Your task to perform on an android device: change alarm snooze length Image 0: 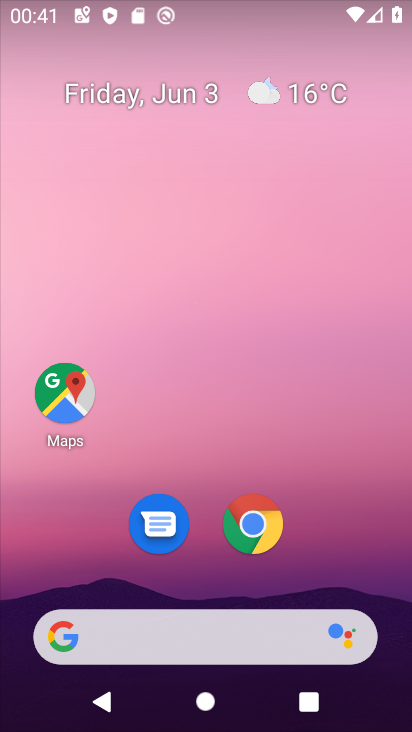
Step 0: drag from (202, 478) to (216, 0)
Your task to perform on an android device: change alarm snooze length Image 1: 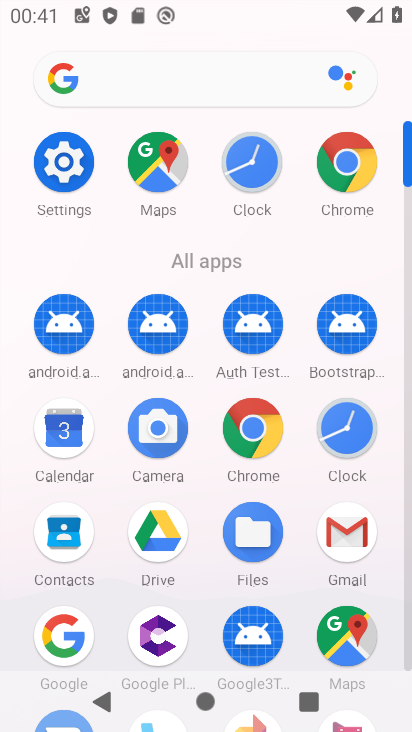
Step 1: click (264, 177)
Your task to perform on an android device: change alarm snooze length Image 2: 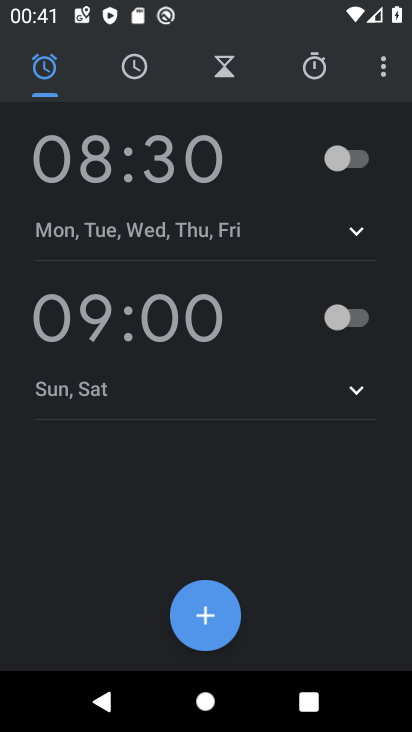
Step 2: click (382, 67)
Your task to perform on an android device: change alarm snooze length Image 3: 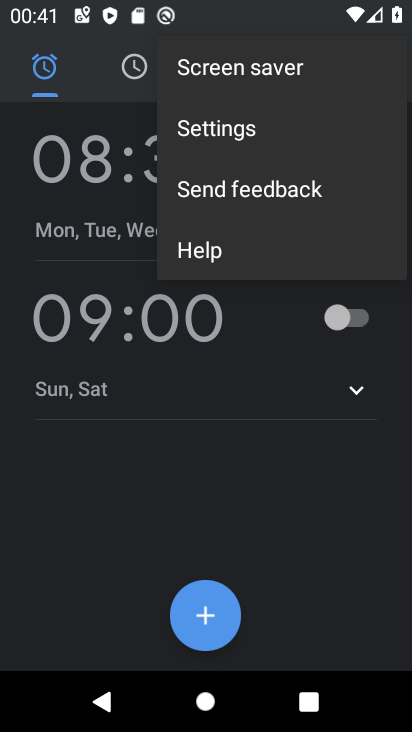
Step 3: click (311, 125)
Your task to perform on an android device: change alarm snooze length Image 4: 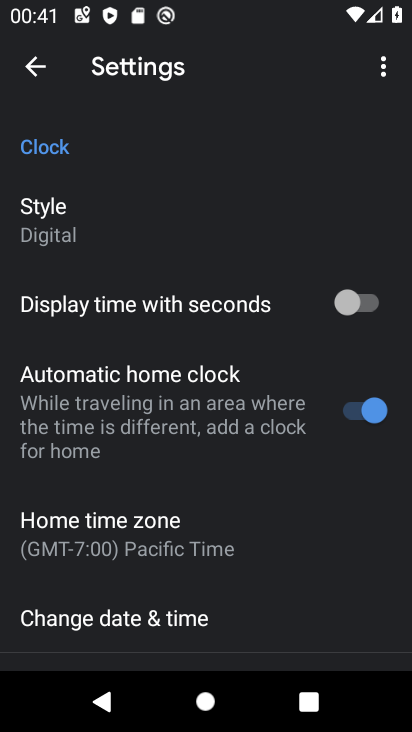
Step 4: drag from (220, 496) to (247, 40)
Your task to perform on an android device: change alarm snooze length Image 5: 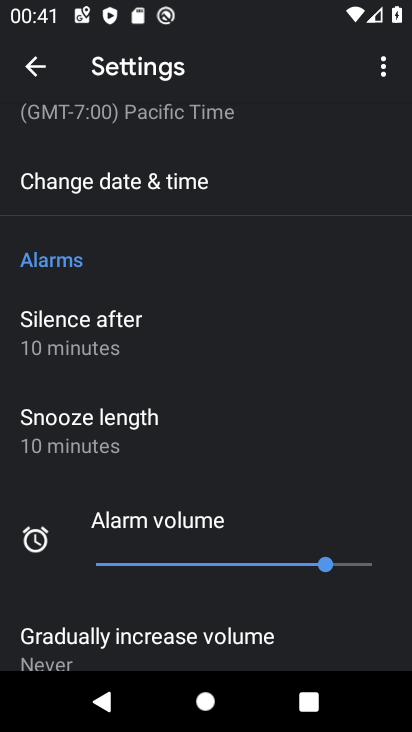
Step 5: click (137, 409)
Your task to perform on an android device: change alarm snooze length Image 6: 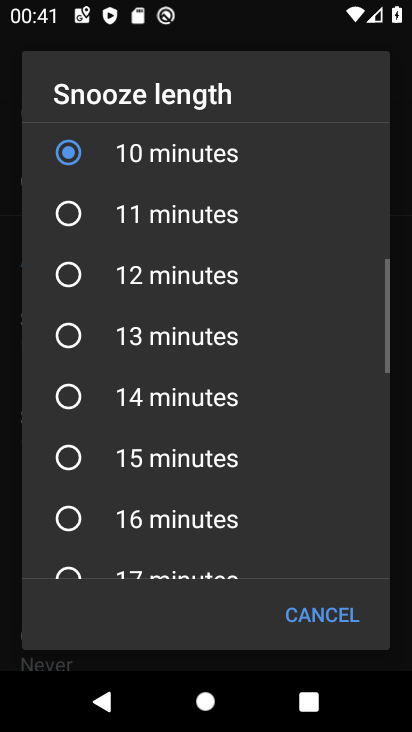
Step 6: click (125, 282)
Your task to perform on an android device: change alarm snooze length Image 7: 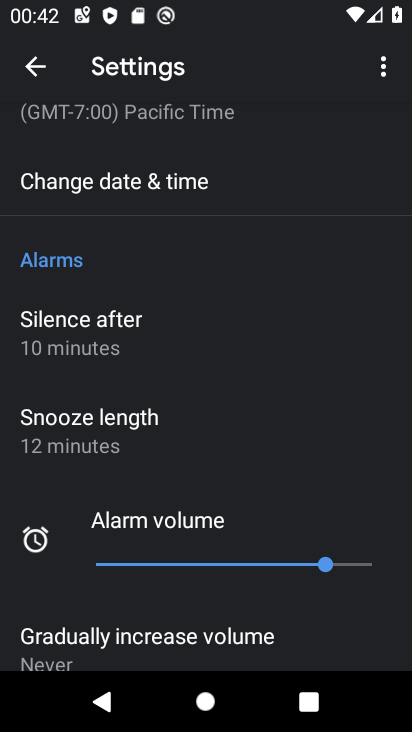
Step 7: task complete